Your task to perform on an android device: Do I have any events this weekend? Image 0: 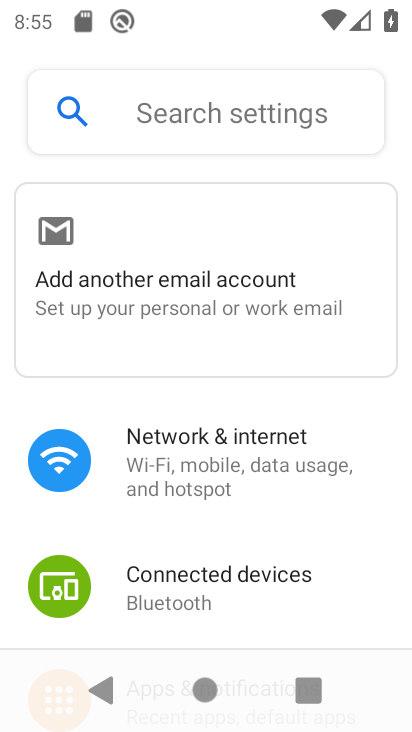
Step 0: press home button
Your task to perform on an android device: Do I have any events this weekend? Image 1: 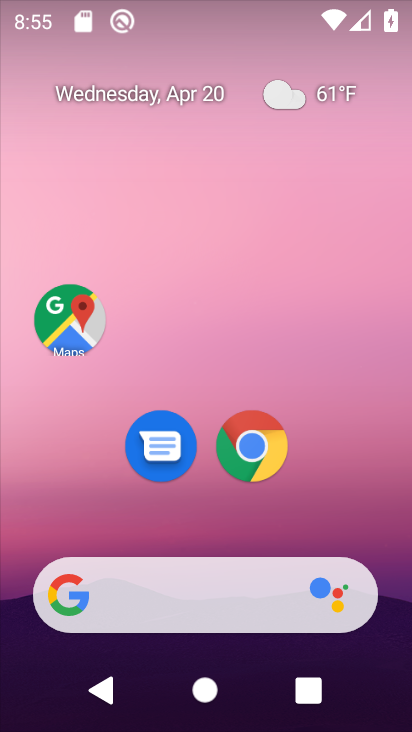
Step 1: drag from (372, 484) to (342, 86)
Your task to perform on an android device: Do I have any events this weekend? Image 2: 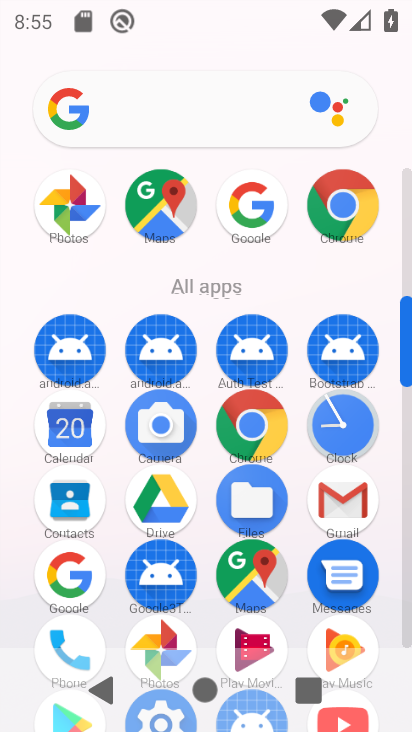
Step 2: click (64, 429)
Your task to perform on an android device: Do I have any events this weekend? Image 3: 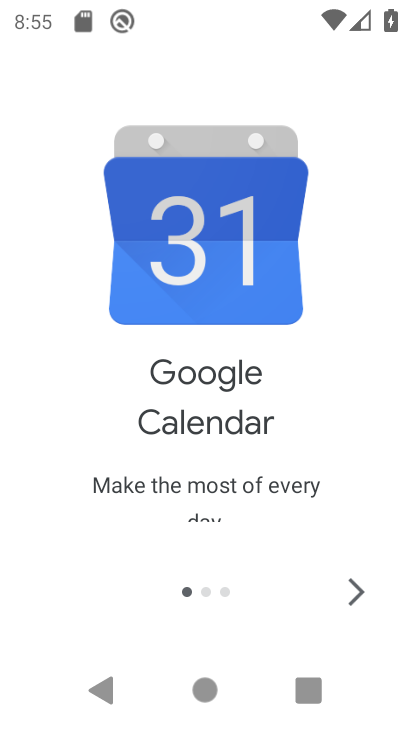
Step 3: click (363, 583)
Your task to perform on an android device: Do I have any events this weekend? Image 4: 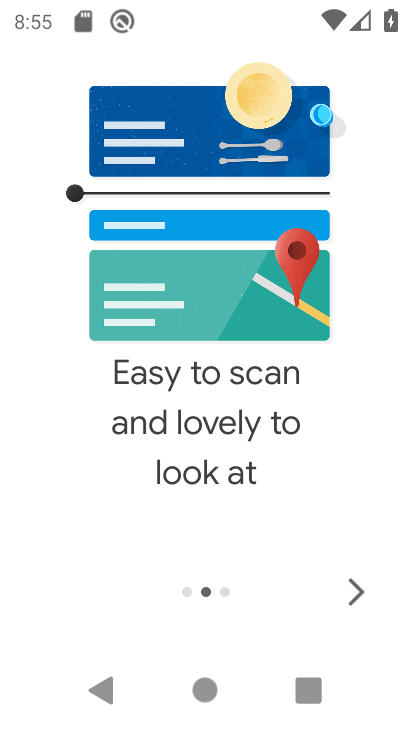
Step 4: click (363, 583)
Your task to perform on an android device: Do I have any events this weekend? Image 5: 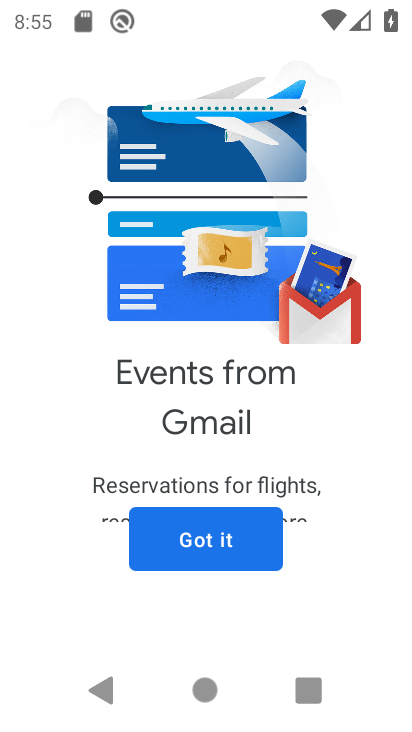
Step 5: click (363, 583)
Your task to perform on an android device: Do I have any events this weekend? Image 6: 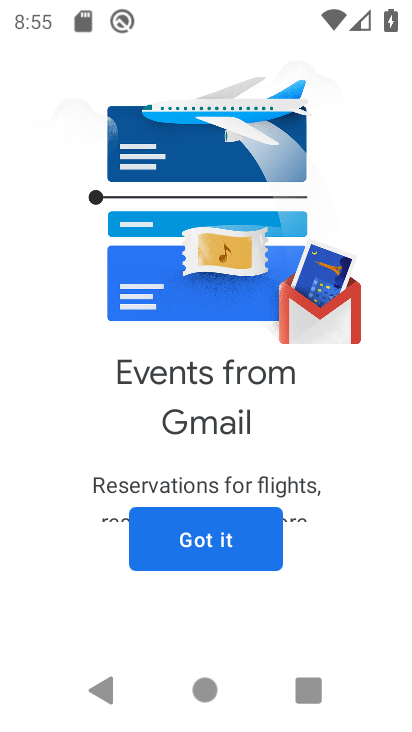
Step 6: click (174, 540)
Your task to perform on an android device: Do I have any events this weekend? Image 7: 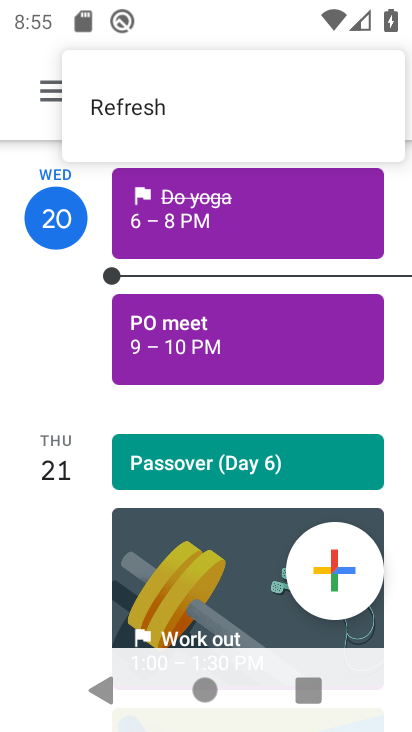
Step 7: task complete